Your task to perform on an android device: Go to eBay Image 0: 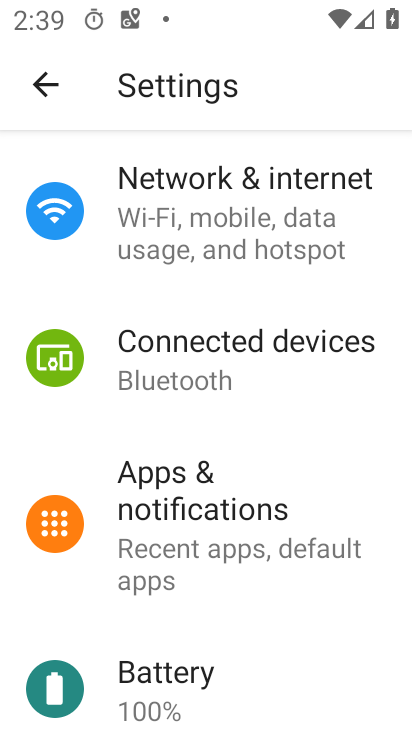
Step 0: press home button
Your task to perform on an android device: Go to eBay Image 1: 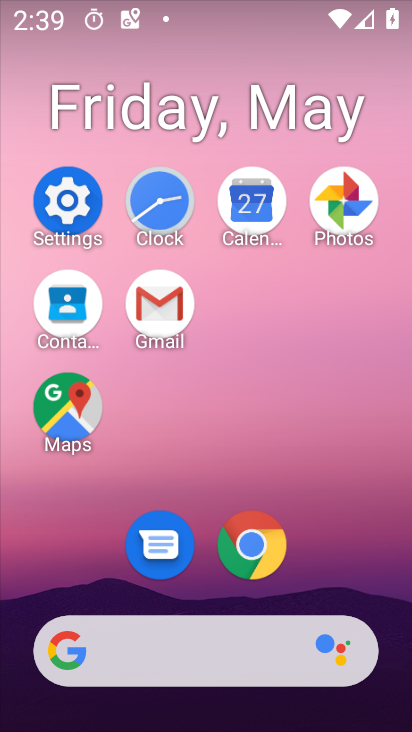
Step 1: click (247, 569)
Your task to perform on an android device: Go to eBay Image 2: 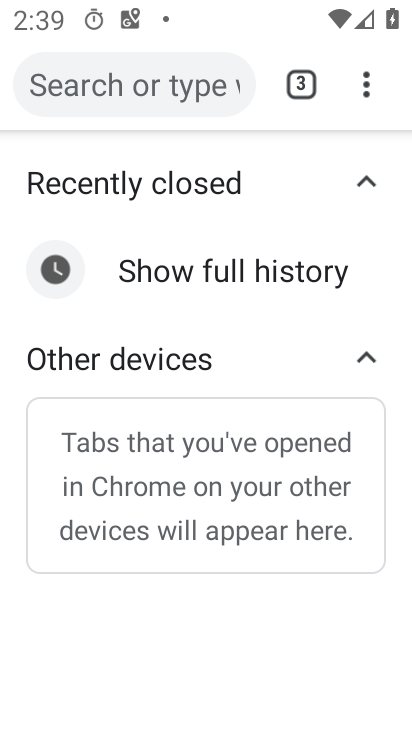
Step 2: click (299, 94)
Your task to perform on an android device: Go to eBay Image 3: 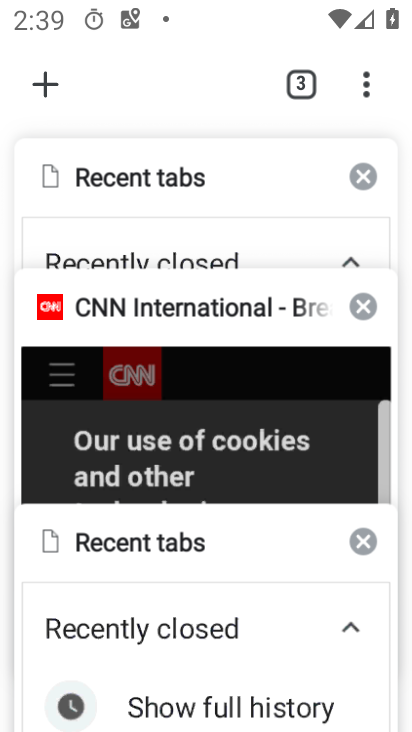
Step 3: click (58, 82)
Your task to perform on an android device: Go to eBay Image 4: 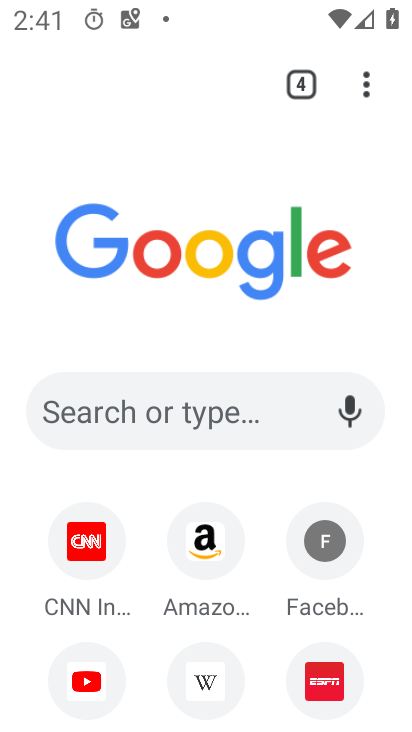
Step 4: click (217, 415)
Your task to perform on an android device: Go to eBay Image 5: 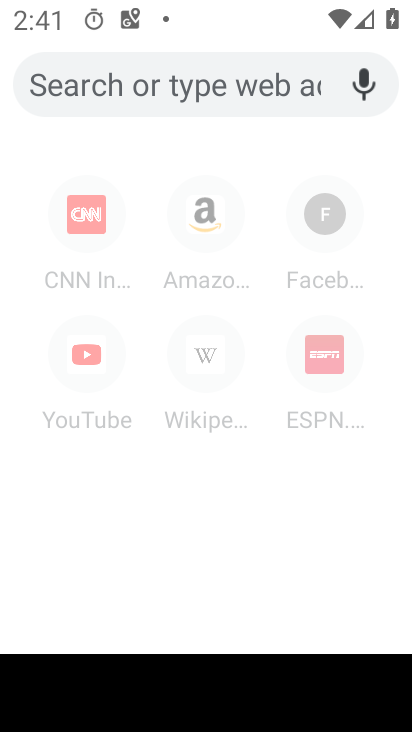
Step 5: type "ebay"
Your task to perform on an android device: Go to eBay Image 6: 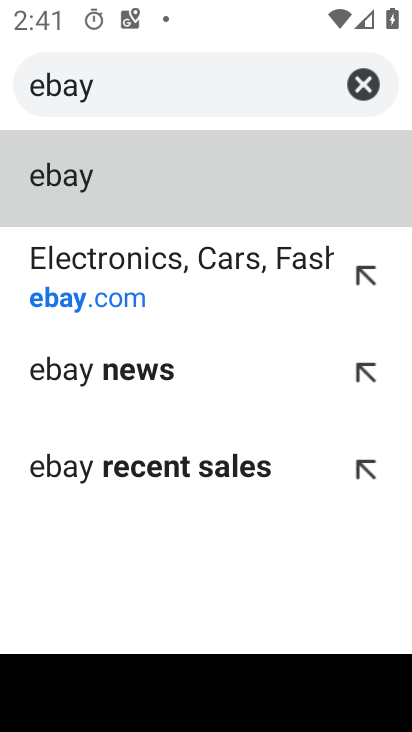
Step 6: click (13, 296)
Your task to perform on an android device: Go to eBay Image 7: 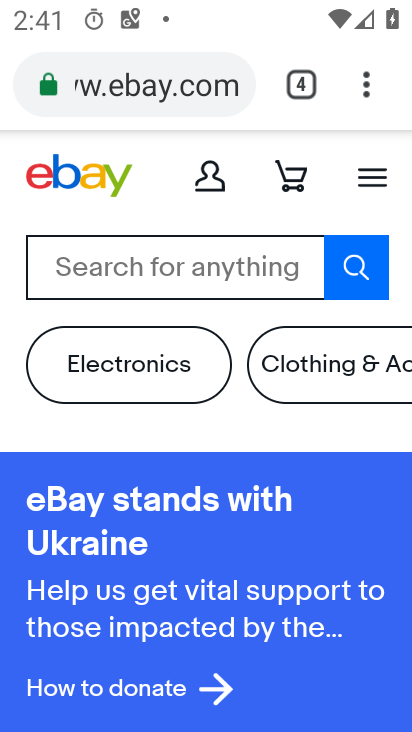
Step 7: task complete